Your task to perform on an android device: turn pop-ups off in chrome Image 0: 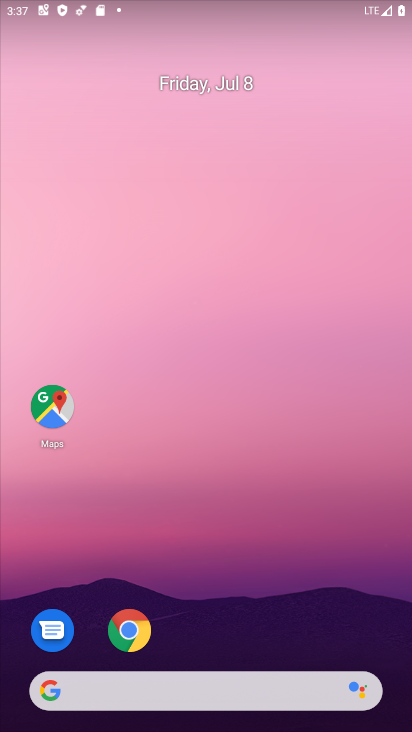
Step 0: click (130, 629)
Your task to perform on an android device: turn pop-ups off in chrome Image 1: 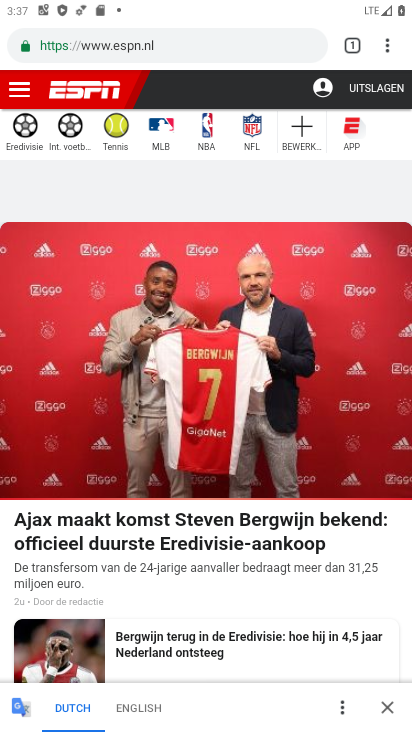
Step 1: click (386, 46)
Your task to perform on an android device: turn pop-ups off in chrome Image 2: 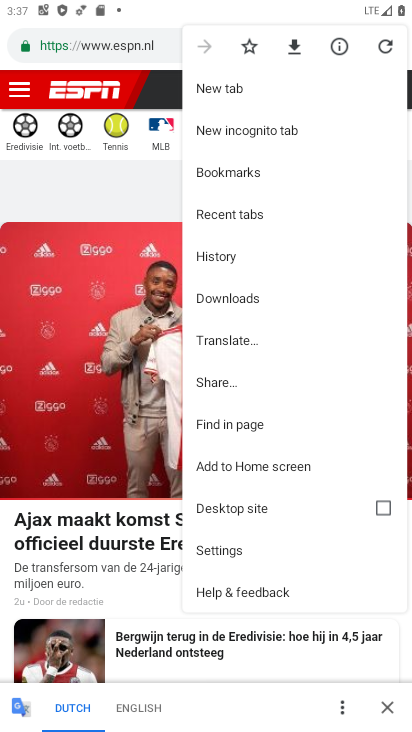
Step 2: click (227, 551)
Your task to perform on an android device: turn pop-ups off in chrome Image 3: 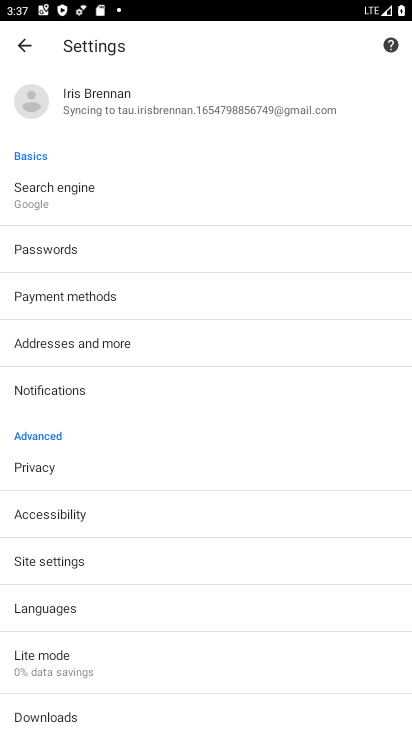
Step 3: click (69, 558)
Your task to perform on an android device: turn pop-ups off in chrome Image 4: 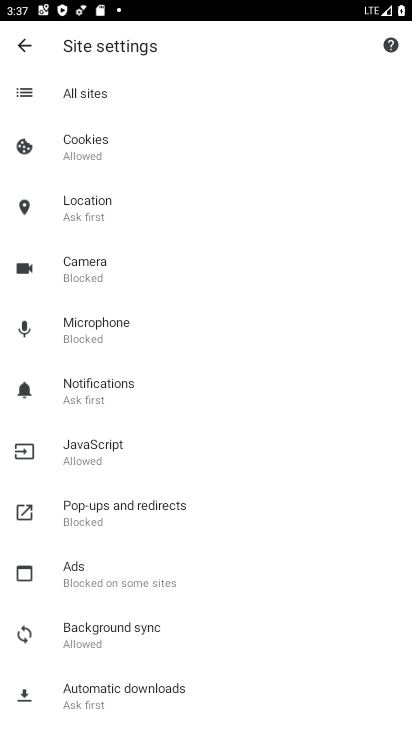
Step 4: click (103, 501)
Your task to perform on an android device: turn pop-ups off in chrome Image 5: 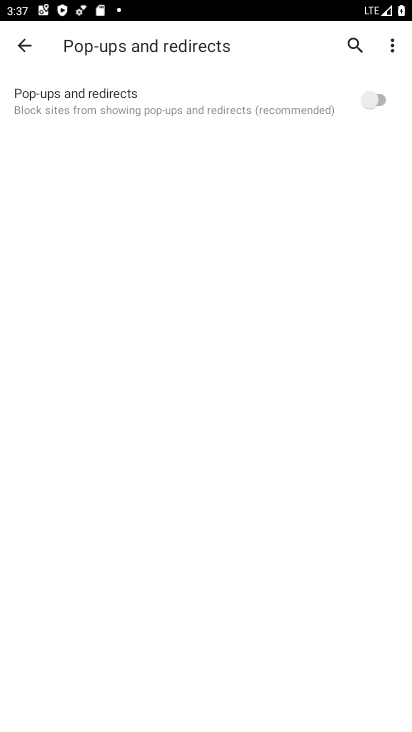
Step 5: task complete